Your task to perform on an android device: turn off notifications in google photos Image 0: 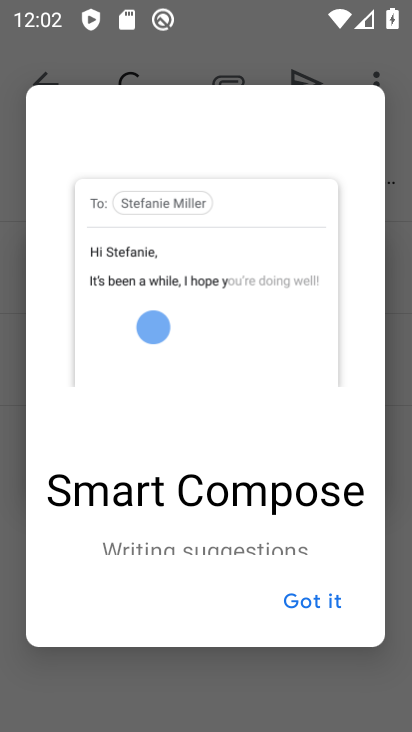
Step 0: press home button
Your task to perform on an android device: turn off notifications in google photos Image 1: 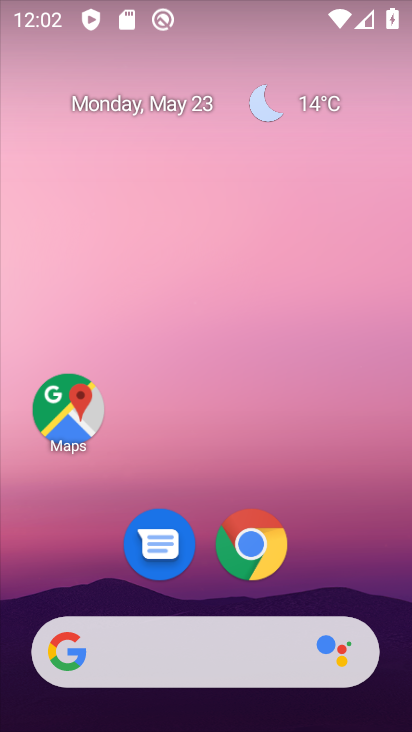
Step 1: drag from (337, 542) to (293, 0)
Your task to perform on an android device: turn off notifications in google photos Image 2: 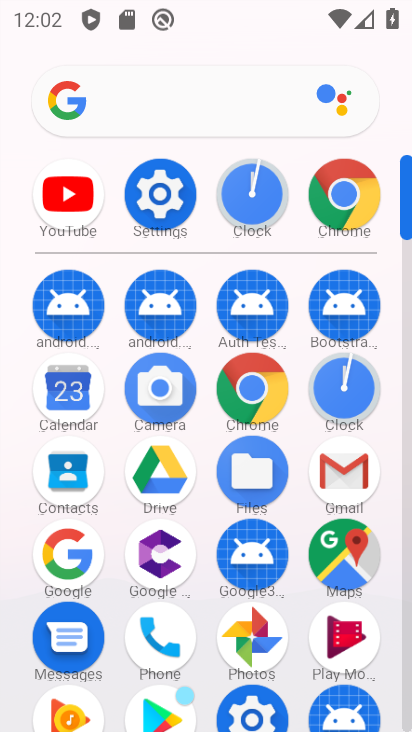
Step 2: click (231, 651)
Your task to perform on an android device: turn off notifications in google photos Image 3: 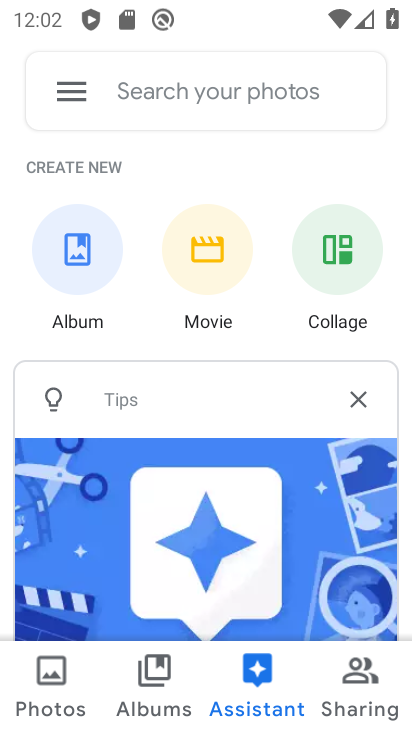
Step 3: click (63, 85)
Your task to perform on an android device: turn off notifications in google photos Image 4: 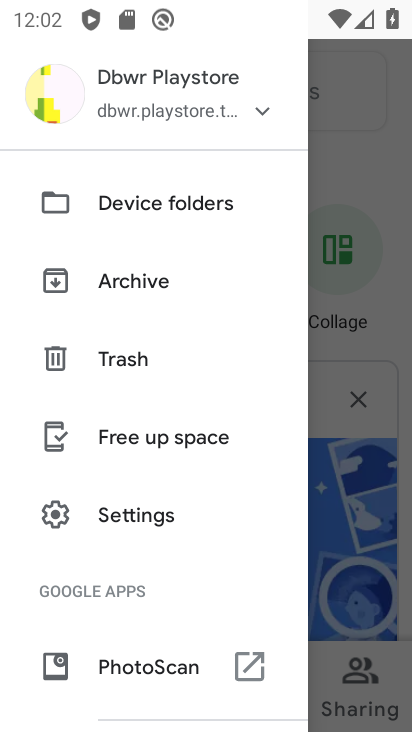
Step 4: drag from (152, 542) to (225, 195)
Your task to perform on an android device: turn off notifications in google photos Image 5: 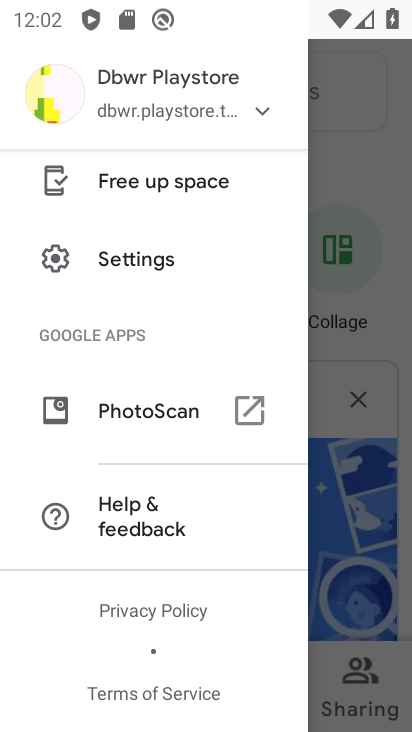
Step 5: click (114, 260)
Your task to perform on an android device: turn off notifications in google photos Image 6: 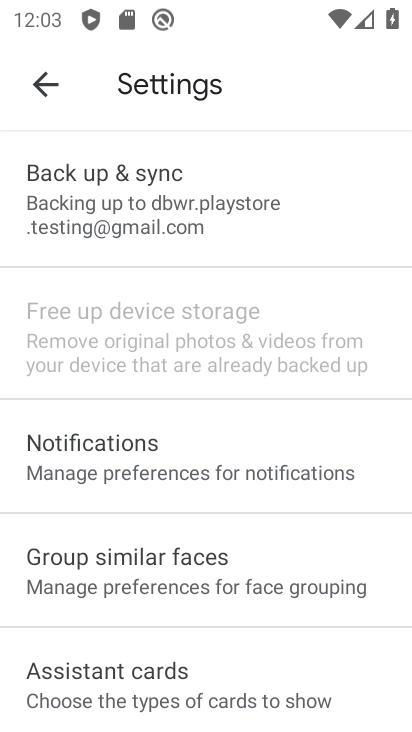
Step 6: drag from (197, 476) to (244, 191)
Your task to perform on an android device: turn off notifications in google photos Image 7: 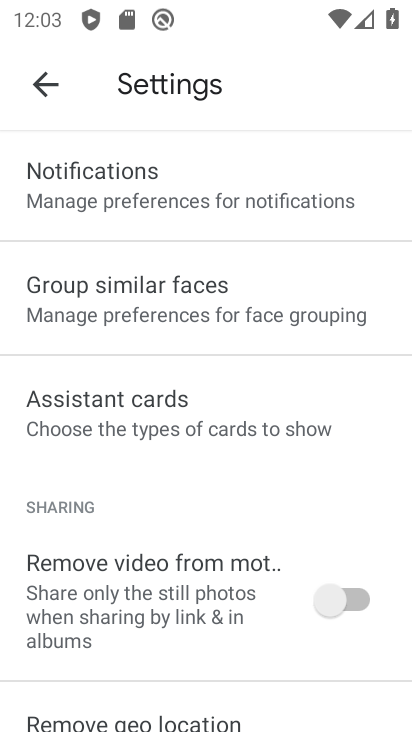
Step 7: click (244, 191)
Your task to perform on an android device: turn off notifications in google photos Image 8: 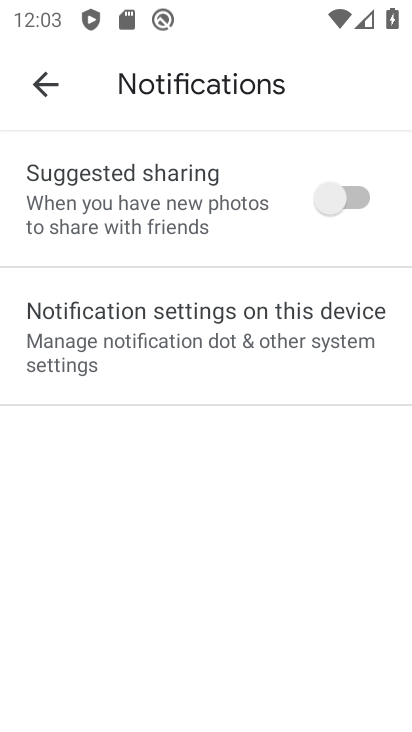
Step 8: click (226, 328)
Your task to perform on an android device: turn off notifications in google photos Image 9: 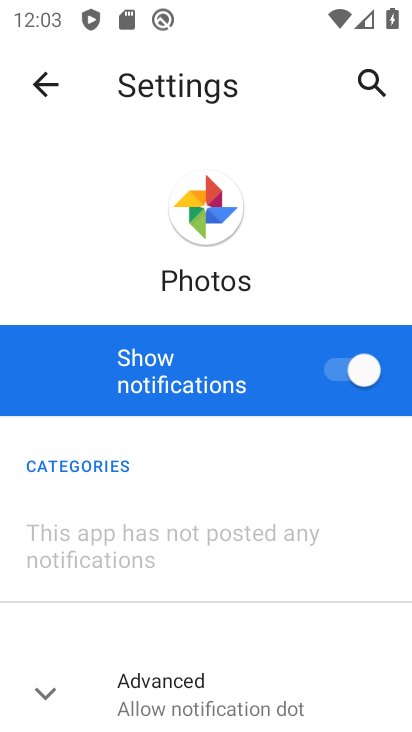
Step 9: click (347, 374)
Your task to perform on an android device: turn off notifications in google photos Image 10: 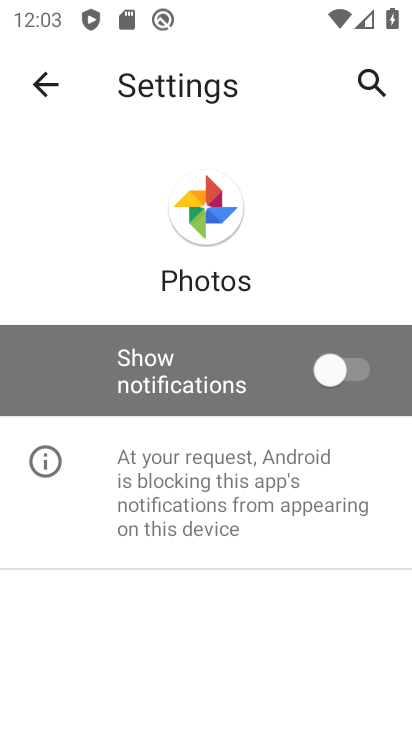
Step 10: task complete